Your task to perform on an android device: Add bose soundlink mini to the cart on ebay.com Image 0: 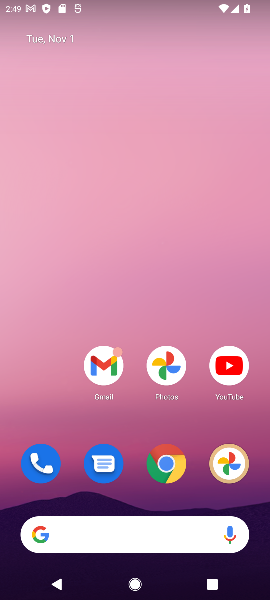
Step 0: drag from (136, 490) to (89, 65)
Your task to perform on an android device: Add bose soundlink mini to the cart on ebay.com Image 1: 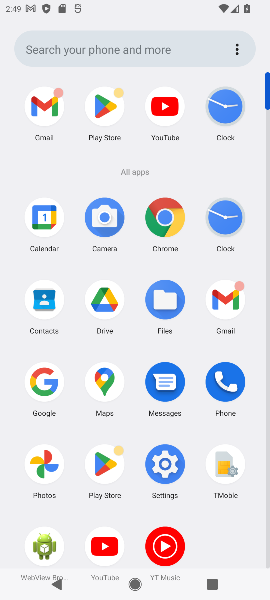
Step 1: click (163, 220)
Your task to perform on an android device: Add bose soundlink mini to the cart on ebay.com Image 2: 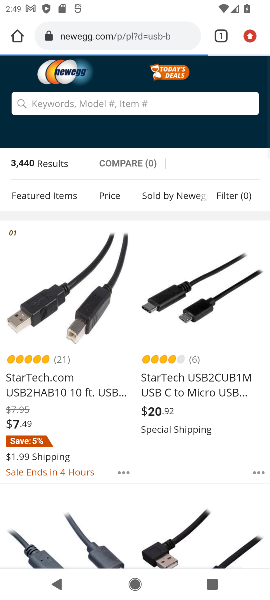
Step 2: click (145, 37)
Your task to perform on an android device: Add bose soundlink mini to the cart on ebay.com Image 3: 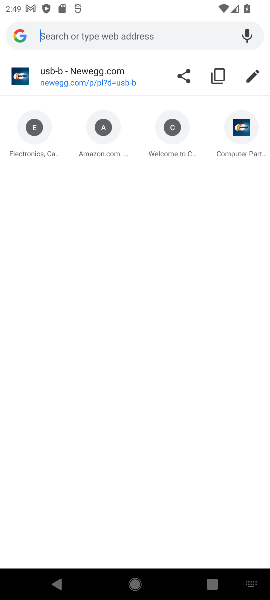
Step 3: type "ebay.com"
Your task to perform on an android device: Add bose soundlink mini to the cart on ebay.com Image 4: 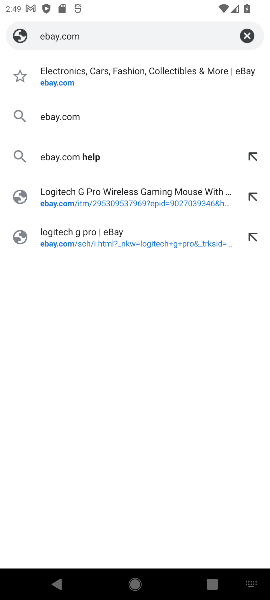
Step 4: press enter
Your task to perform on an android device: Add bose soundlink mini to the cart on ebay.com Image 5: 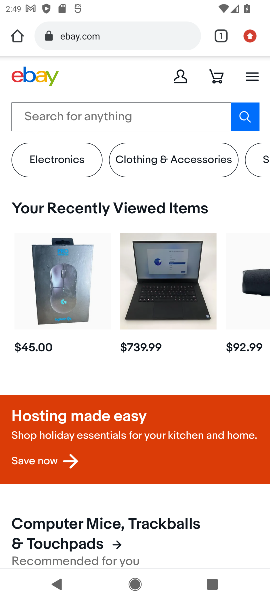
Step 5: click (93, 115)
Your task to perform on an android device: Add bose soundlink mini to the cart on ebay.com Image 6: 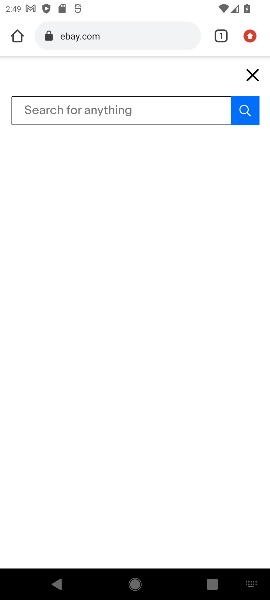
Step 6: type "soundlink mini"
Your task to perform on an android device: Add bose soundlink mini to the cart on ebay.com Image 7: 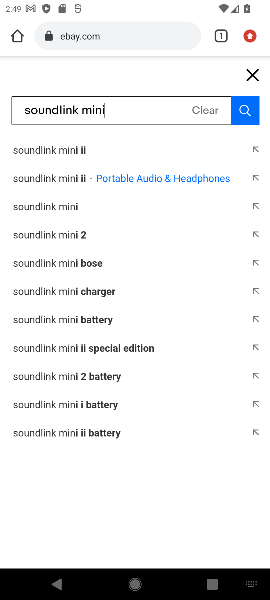
Step 7: press enter
Your task to perform on an android device: Add bose soundlink mini to the cart on ebay.com Image 8: 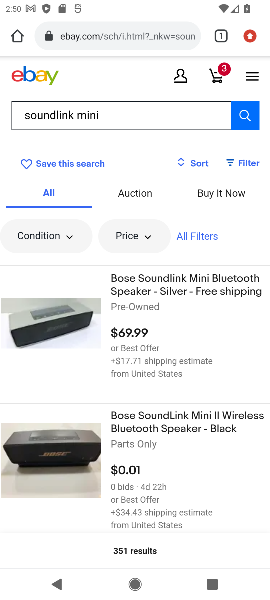
Step 8: click (53, 316)
Your task to perform on an android device: Add bose soundlink mini to the cart on ebay.com Image 9: 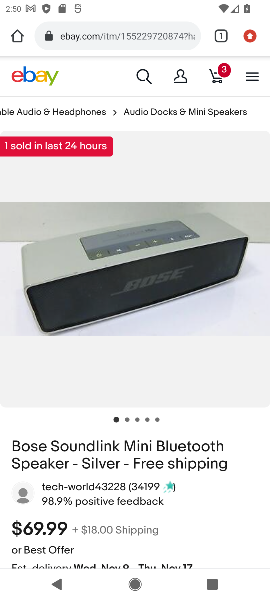
Step 9: drag from (168, 509) to (147, 250)
Your task to perform on an android device: Add bose soundlink mini to the cart on ebay.com Image 10: 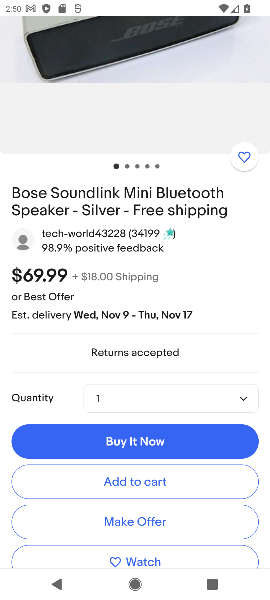
Step 10: click (191, 482)
Your task to perform on an android device: Add bose soundlink mini to the cart on ebay.com Image 11: 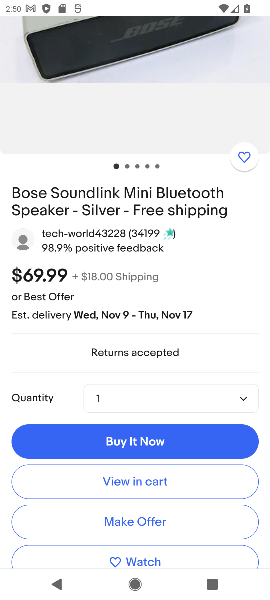
Step 11: task complete